Your task to perform on an android device: Search for a new lawnmower on home depot Image 0: 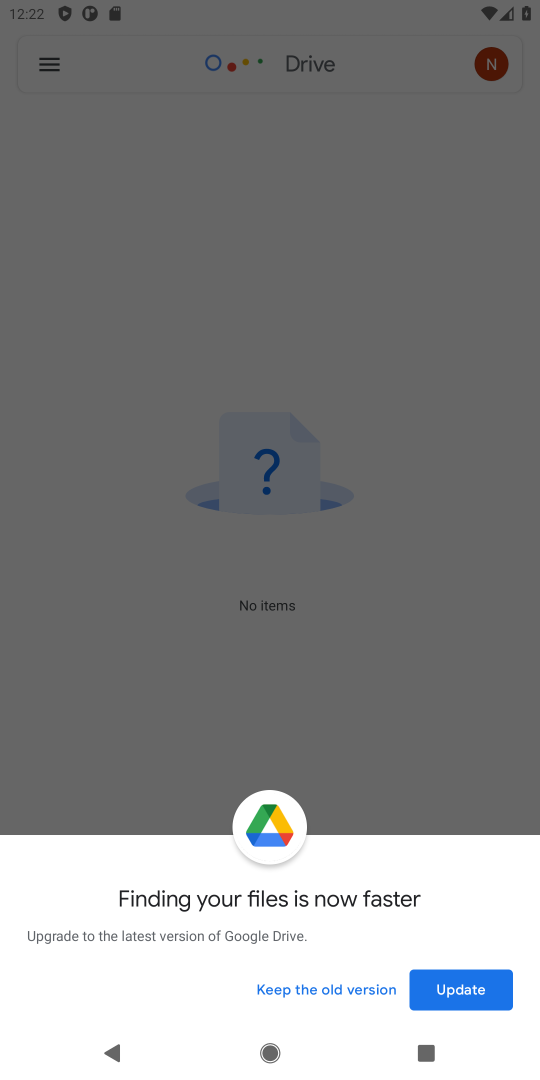
Step 0: press home button
Your task to perform on an android device: Search for a new lawnmower on home depot Image 1: 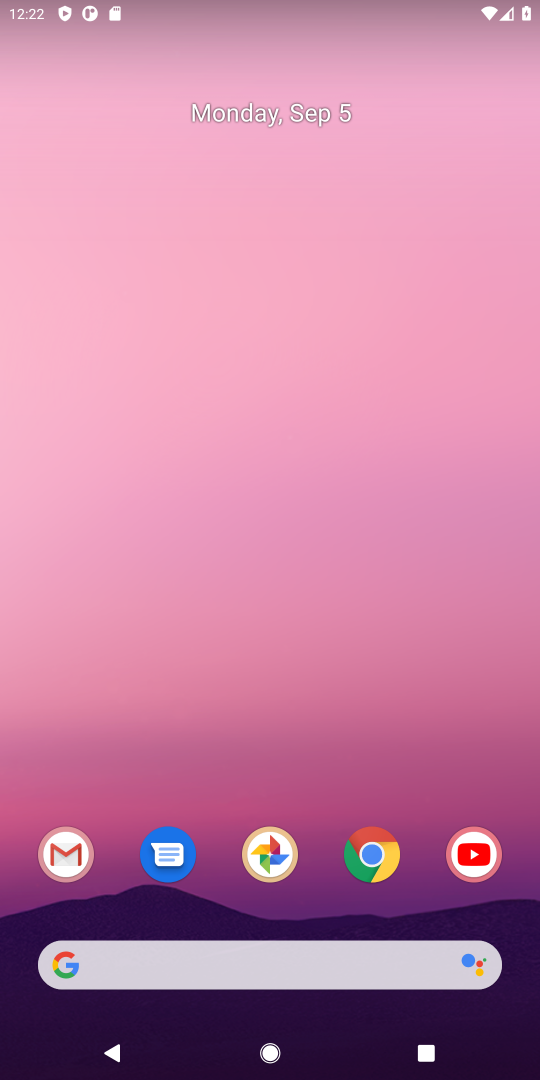
Step 1: click (385, 848)
Your task to perform on an android device: Search for a new lawnmower on home depot Image 2: 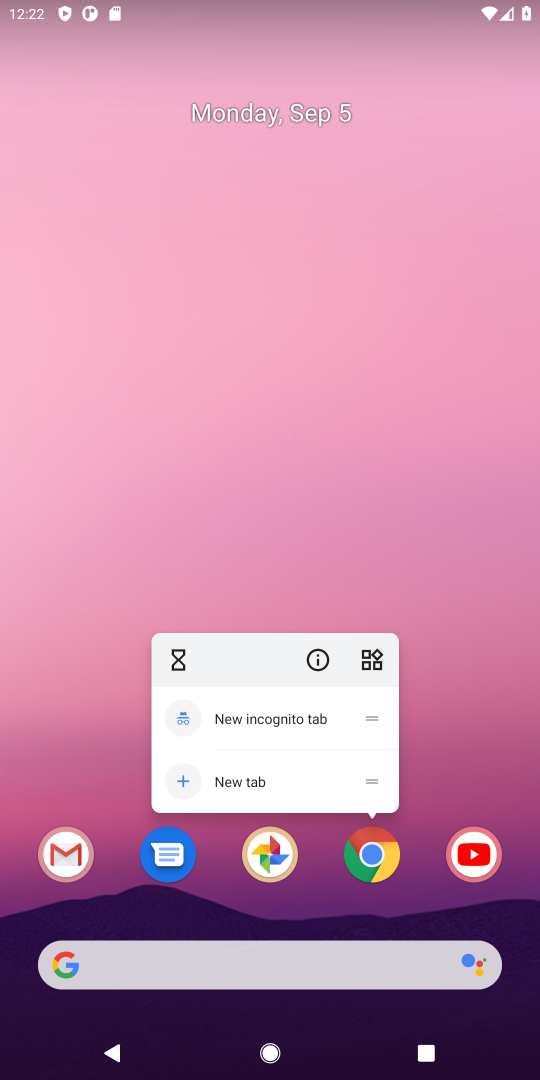
Step 2: click (363, 857)
Your task to perform on an android device: Search for a new lawnmower on home depot Image 3: 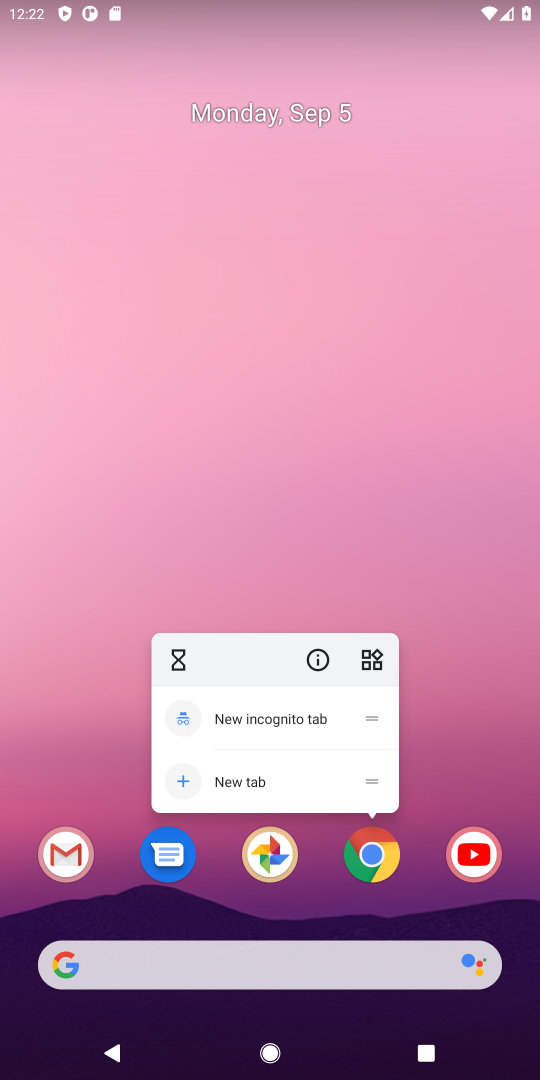
Step 3: click (363, 857)
Your task to perform on an android device: Search for a new lawnmower on home depot Image 4: 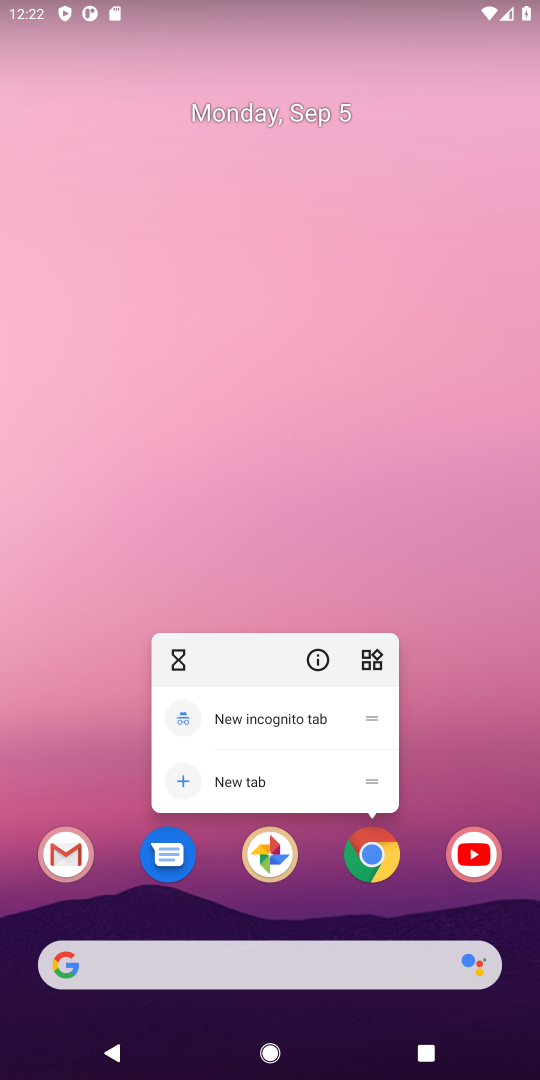
Step 4: click (379, 847)
Your task to perform on an android device: Search for a new lawnmower on home depot Image 5: 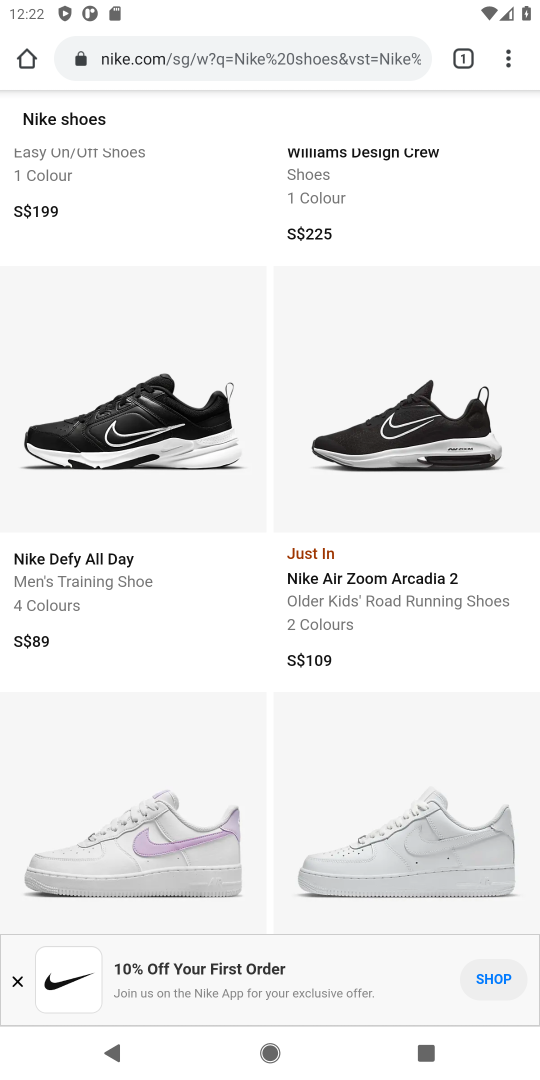
Step 5: click (264, 63)
Your task to perform on an android device: Search for a new lawnmower on home depot Image 6: 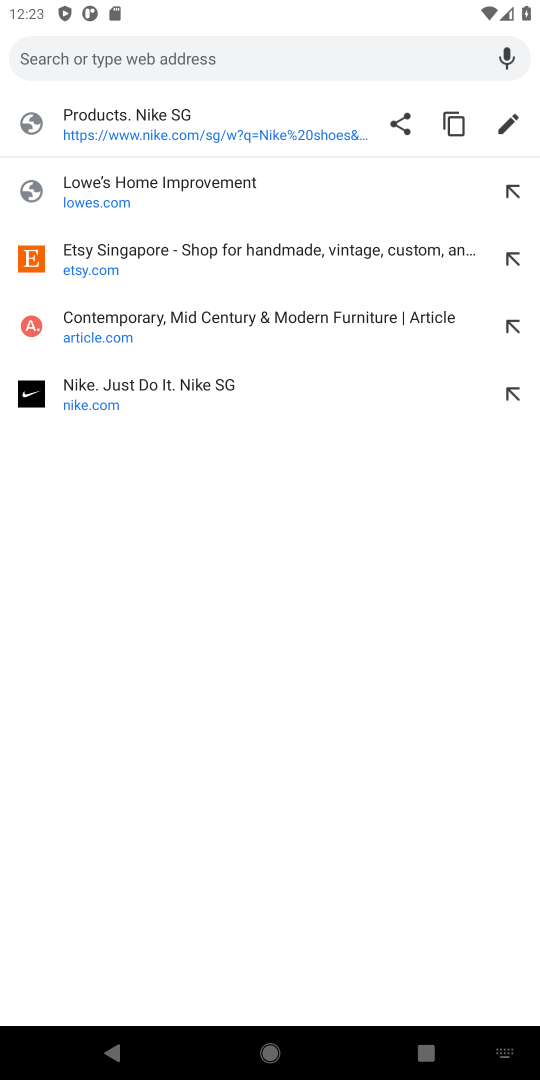
Step 6: type "home depot"
Your task to perform on an android device: Search for a new lawnmower on home depot Image 7: 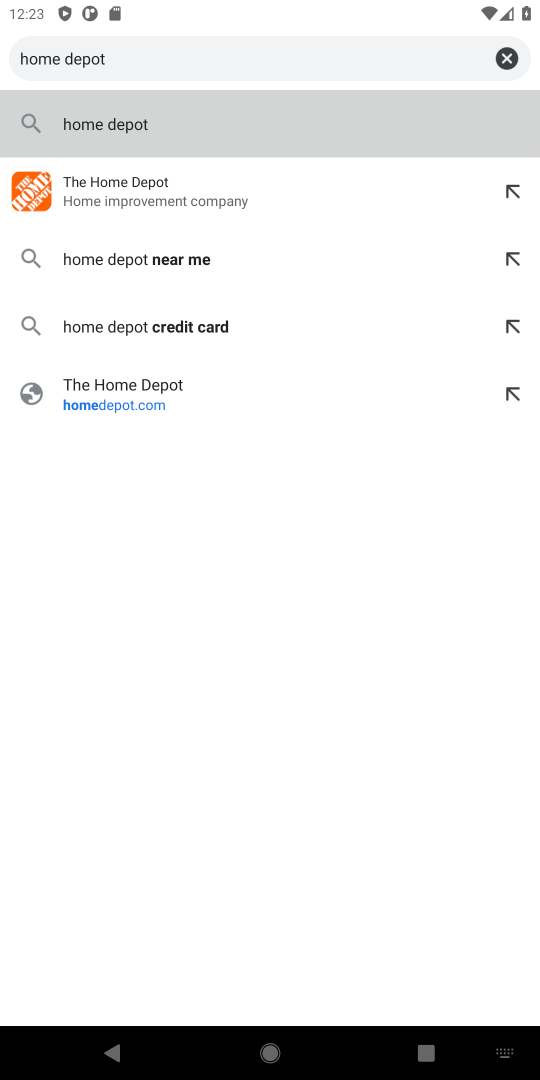
Step 7: press enter
Your task to perform on an android device: Search for a new lawnmower on home depot Image 8: 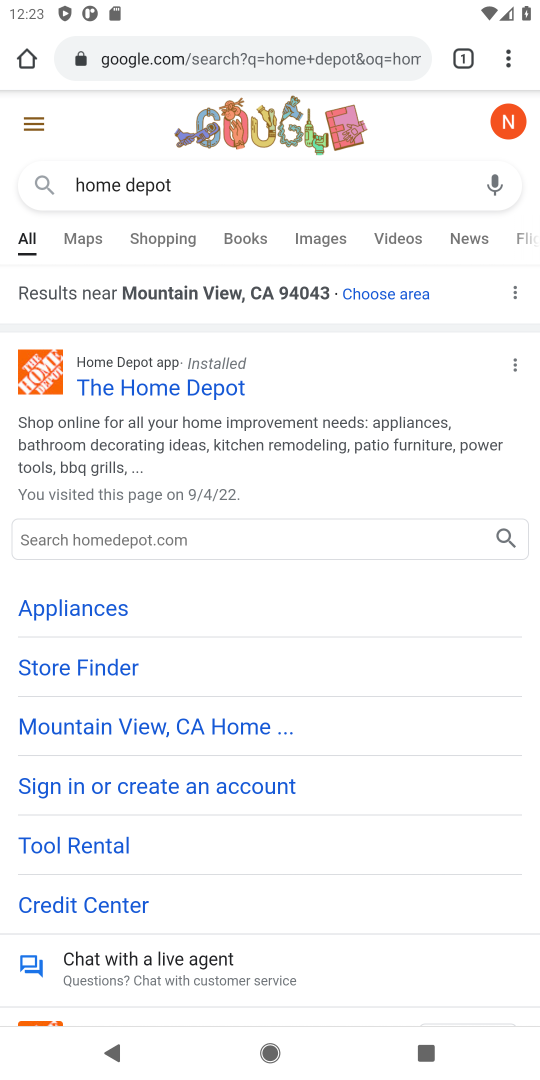
Step 8: task complete